Your task to perform on an android device: move an email to a new category in the gmail app Image 0: 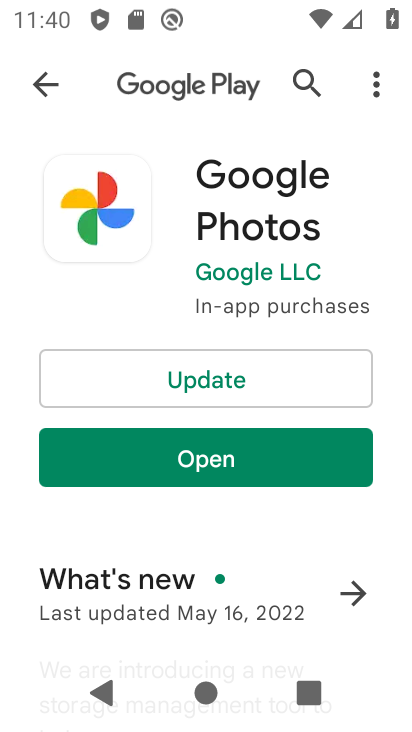
Step 0: press home button
Your task to perform on an android device: move an email to a new category in the gmail app Image 1: 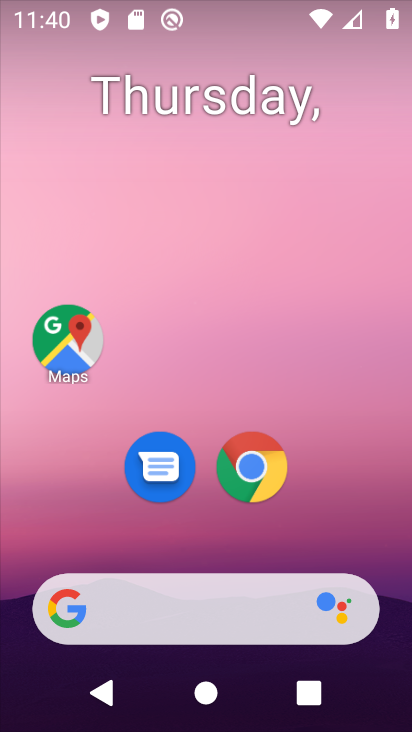
Step 1: drag from (348, 556) to (384, 32)
Your task to perform on an android device: move an email to a new category in the gmail app Image 2: 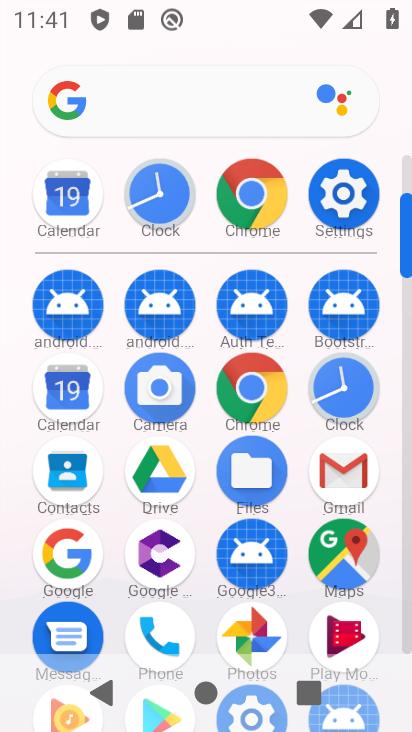
Step 2: click (339, 476)
Your task to perform on an android device: move an email to a new category in the gmail app Image 3: 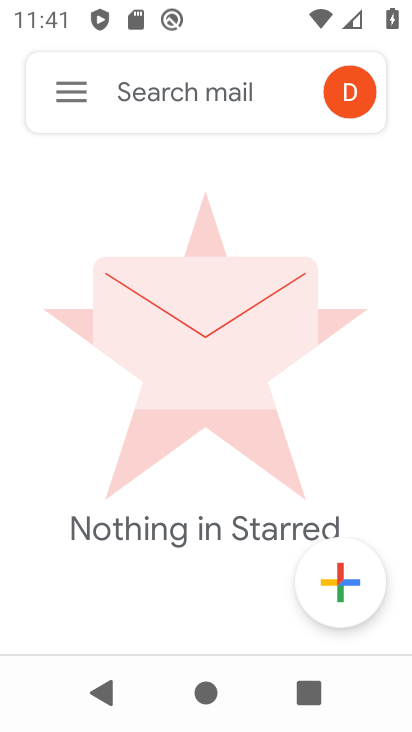
Step 3: click (76, 94)
Your task to perform on an android device: move an email to a new category in the gmail app Image 4: 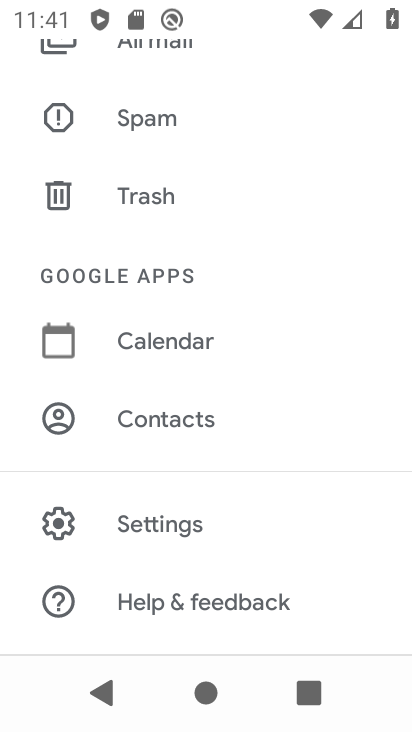
Step 4: drag from (291, 255) to (295, 453)
Your task to perform on an android device: move an email to a new category in the gmail app Image 5: 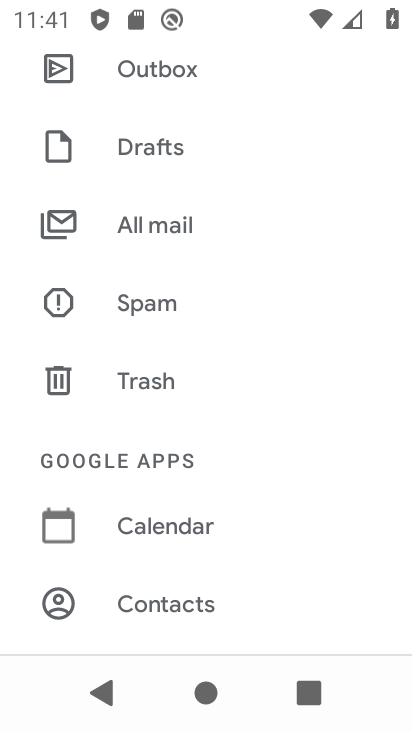
Step 5: click (145, 229)
Your task to perform on an android device: move an email to a new category in the gmail app Image 6: 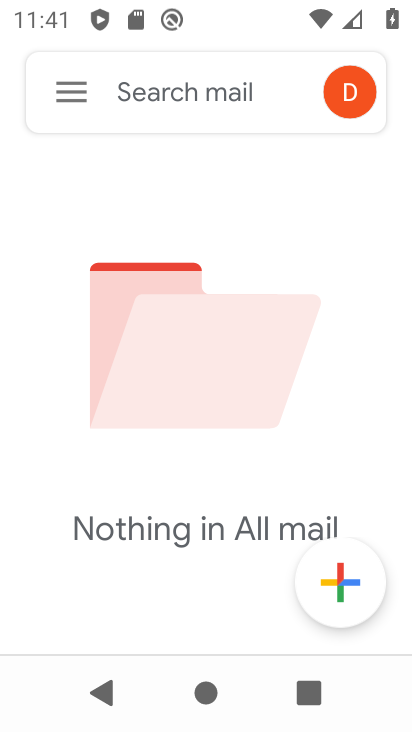
Step 6: task complete